Your task to perform on an android device: turn off priority inbox in the gmail app Image 0: 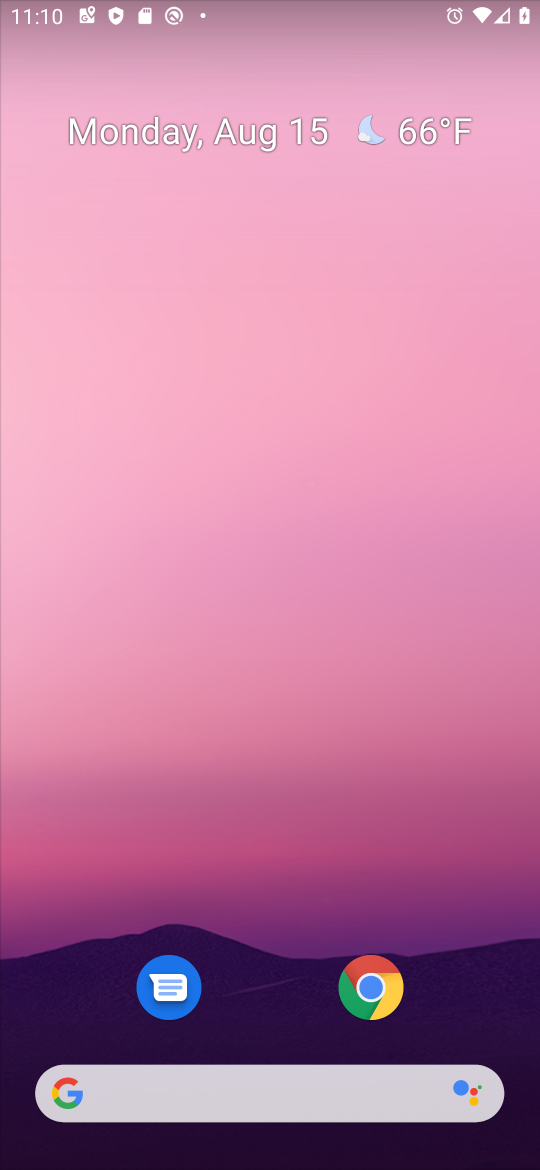
Step 0: drag from (294, 1022) to (139, 41)
Your task to perform on an android device: turn off priority inbox in the gmail app Image 1: 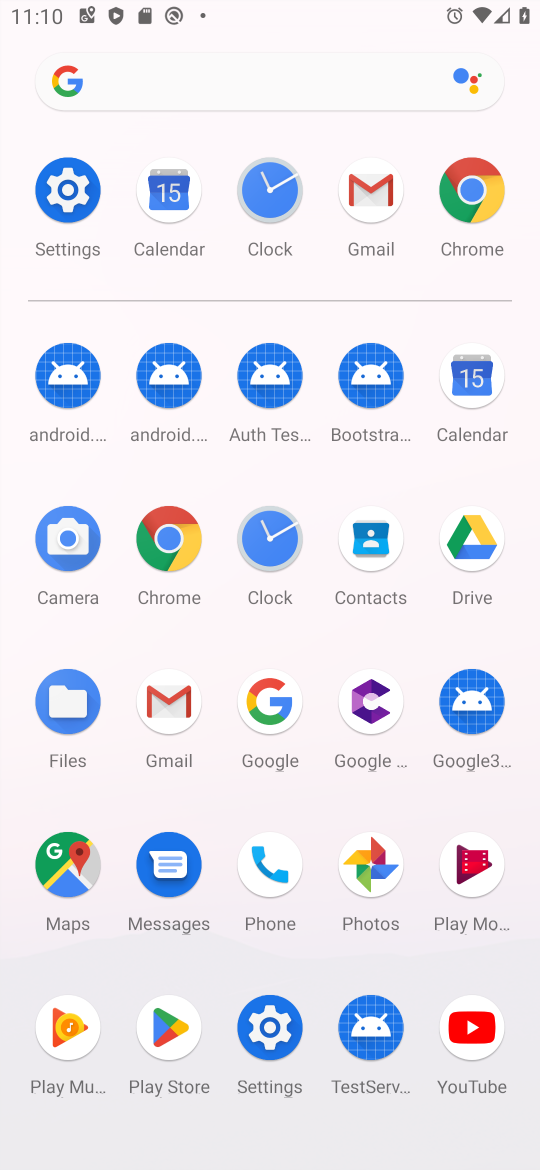
Step 1: click (172, 732)
Your task to perform on an android device: turn off priority inbox in the gmail app Image 2: 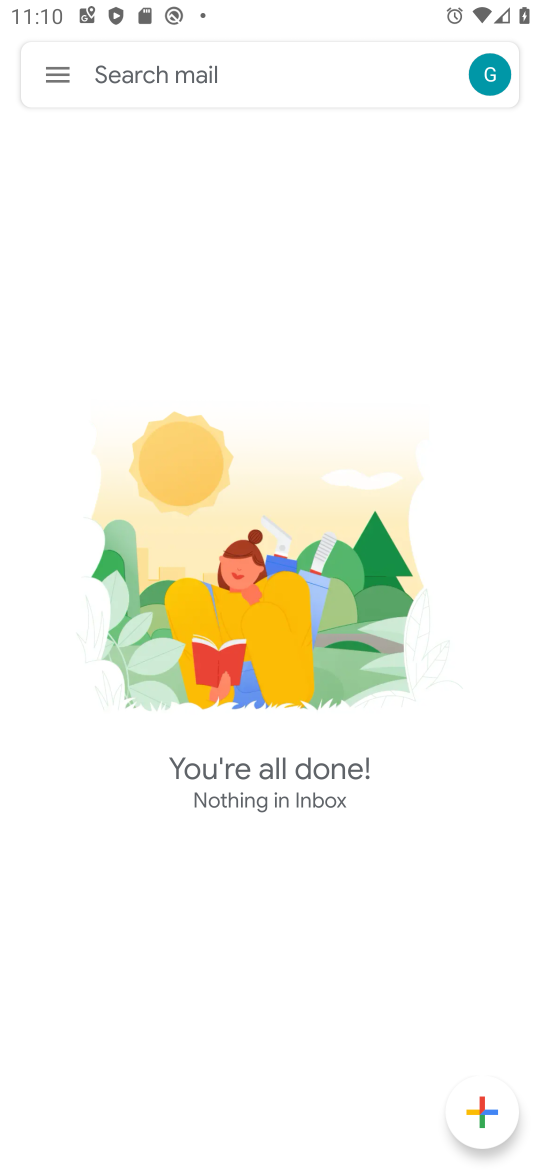
Step 2: click (44, 71)
Your task to perform on an android device: turn off priority inbox in the gmail app Image 3: 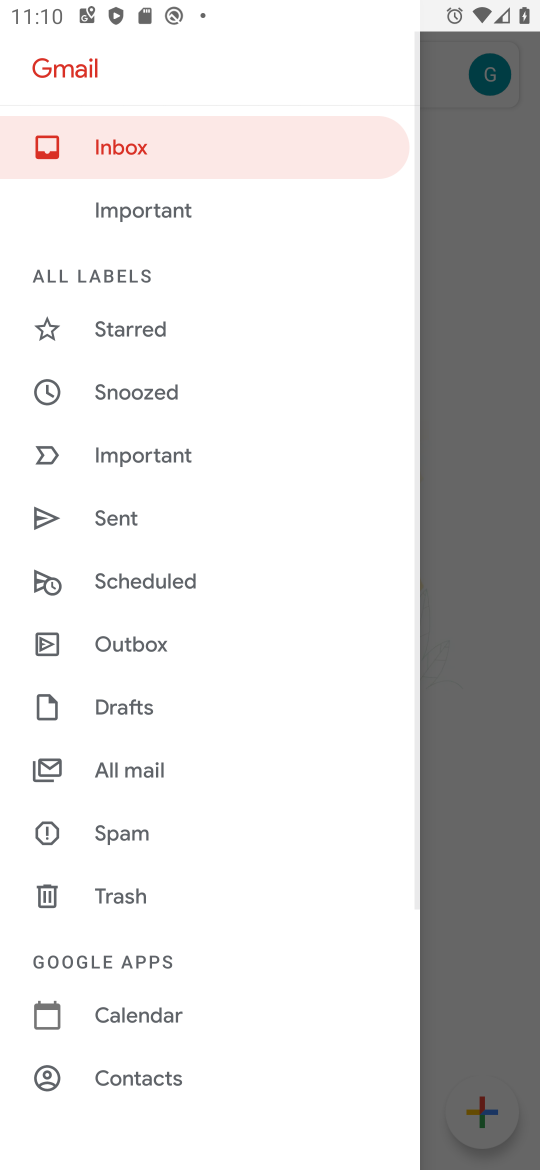
Step 3: drag from (267, 1063) to (189, 347)
Your task to perform on an android device: turn off priority inbox in the gmail app Image 4: 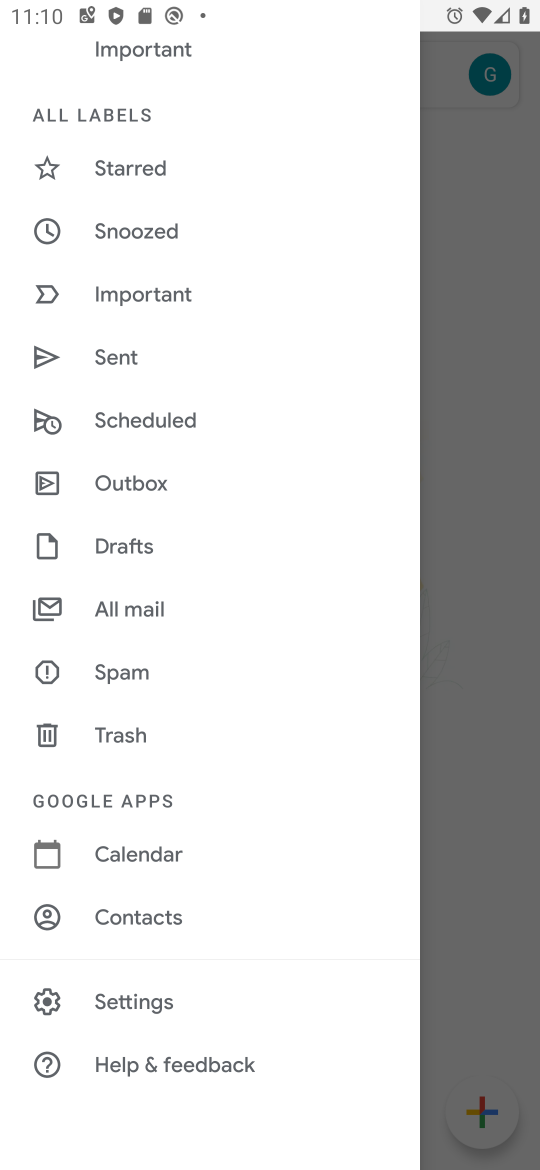
Step 4: click (153, 1001)
Your task to perform on an android device: turn off priority inbox in the gmail app Image 5: 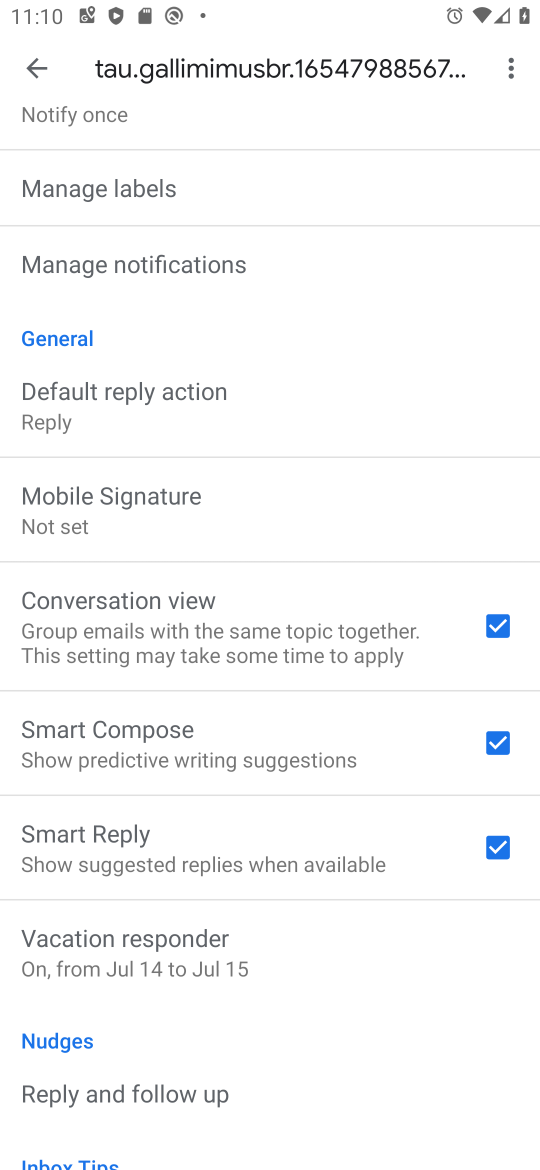
Step 5: drag from (206, 771) to (170, 167)
Your task to perform on an android device: turn off priority inbox in the gmail app Image 6: 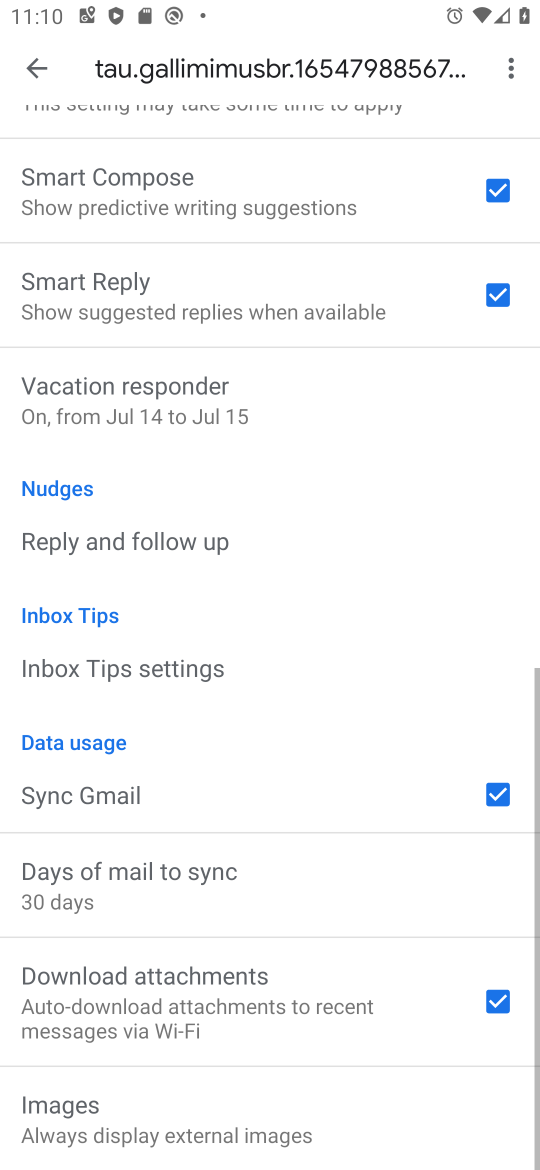
Step 6: drag from (170, 166) to (182, 751)
Your task to perform on an android device: turn off priority inbox in the gmail app Image 7: 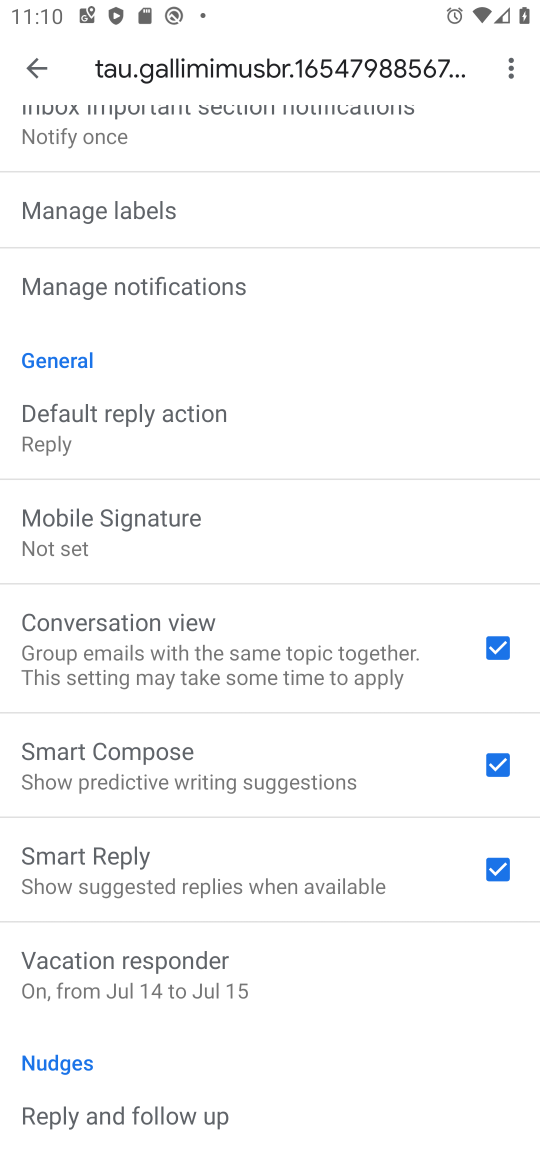
Step 7: drag from (140, 320) to (171, 922)
Your task to perform on an android device: turn off priority inbox in the gmail app Image 8: 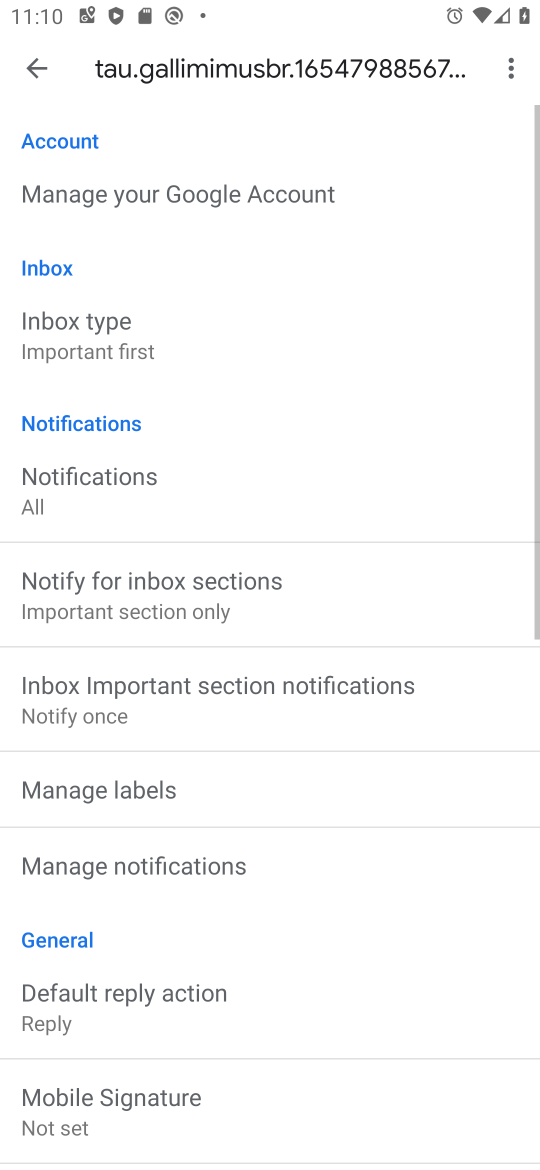
Step 8: click (128, 346)
Your task to perform on an android device: turn off priority inbox in the gmail app Image 9: 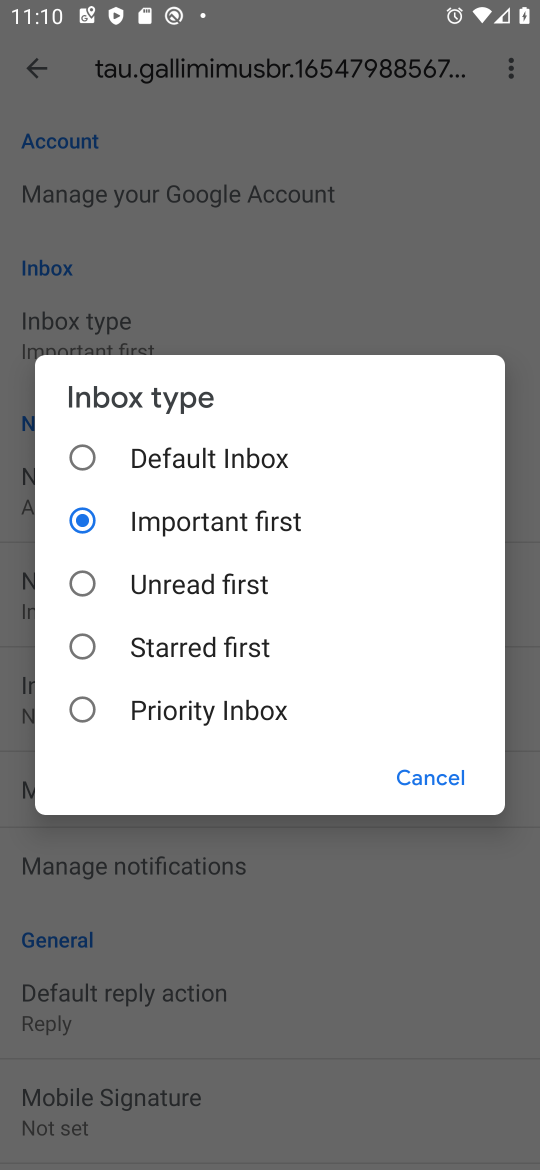
Step 9: task complete